Your task to perform on an android device: turn on the 24-hour format for clock Image 0: 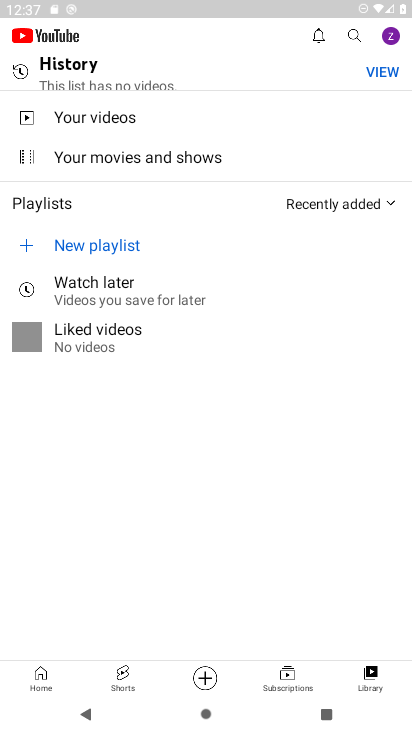
Step 0: press back button
Your task to perform on an android device: turn on the 24-hour format for clock Image 1: 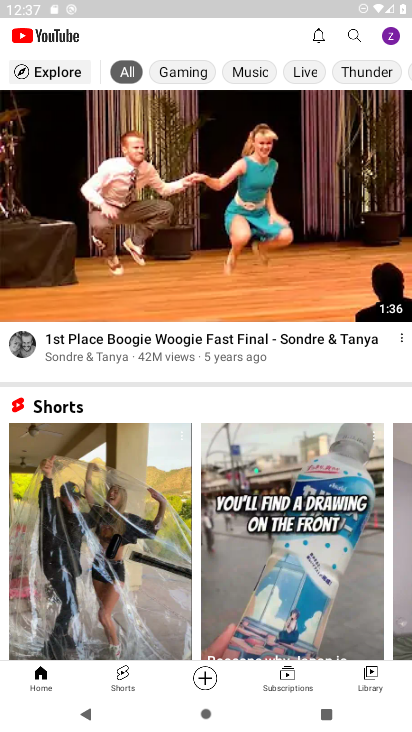
Step 1: press back button
Your task to perform on an android device: turn on the 24-hour format for clock Image 2: 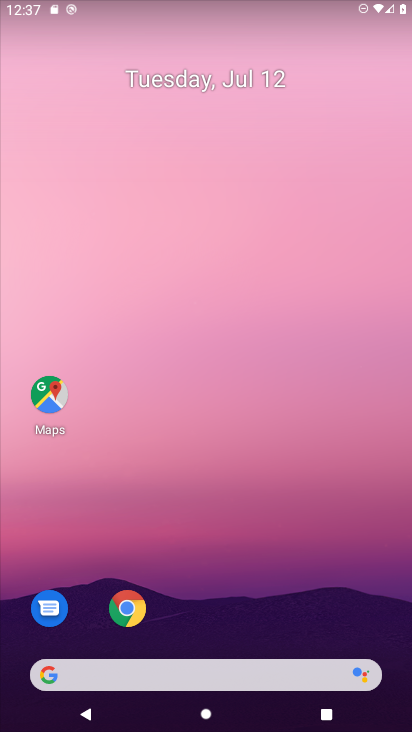
Step 2: drag from (191, 635) to (256, 15)
Your task to perform on an android device: turn on the 24-hour format for clock Image 3: 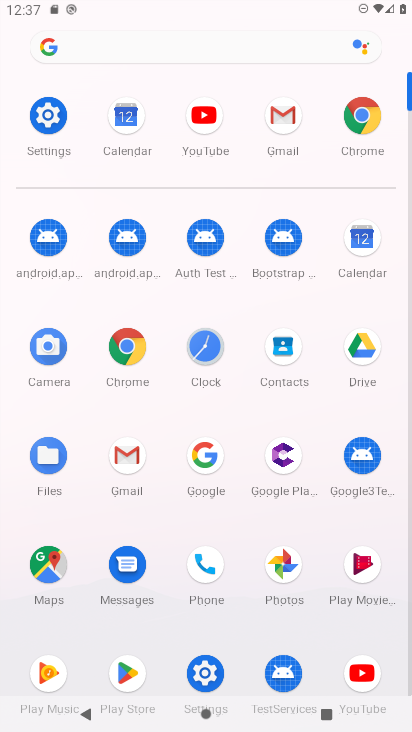
Step 3: click (207, 358)
Your task to perform on an android device: turn on the 24-hour format for clock Image 4: 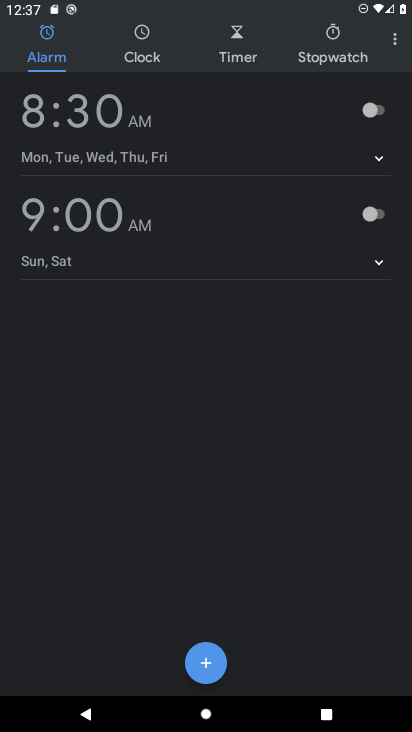
Step 4: click (394, 38)
Your task to perform on an android device: turn on the 24-hour format for clock Image 5: 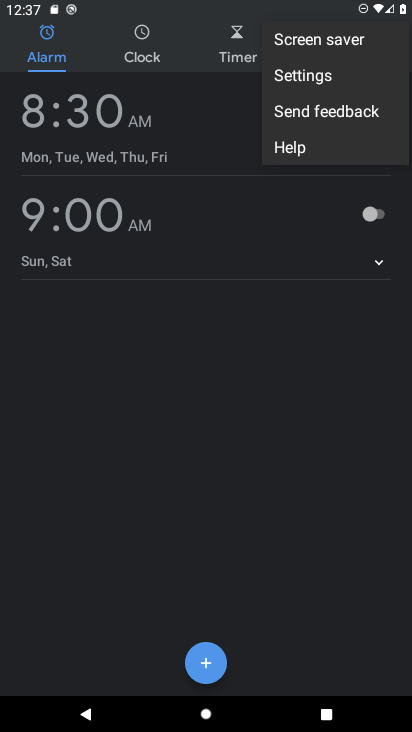
Step 5: click (297, 85)
Your task to perform on an android device: turn on the 24-hour format for clock Image 6: 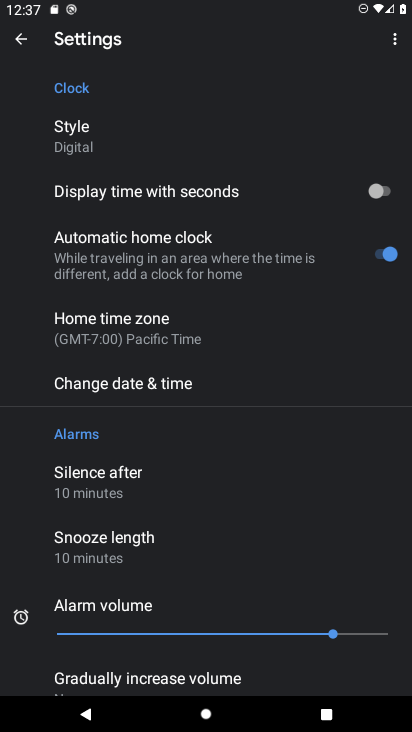
Step 6: click (102, 372)
Your task to perform on an android device: turn on the 24-hour format for clock Image 7: 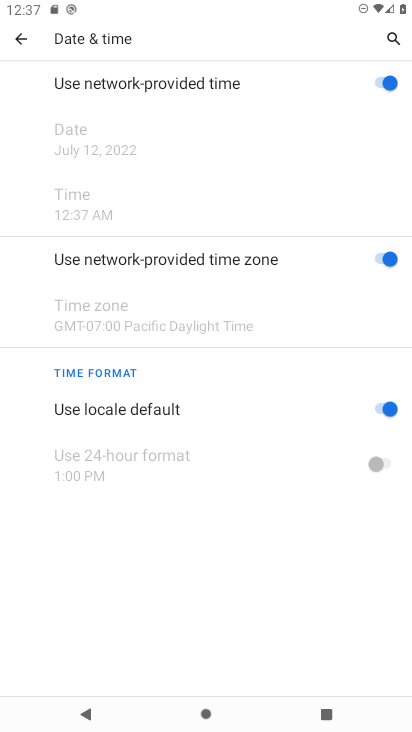
Step 7: click (382, 411)
Your task to perform on an android device: turn on the 24-hour format for clock Image 8: 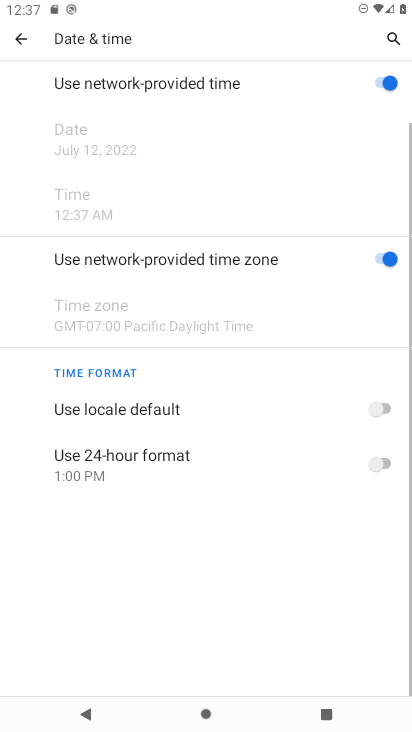
Step 8: click (375, 471)
Your task to perform on an android device: turn on the 24-hour format for clock Image 9: 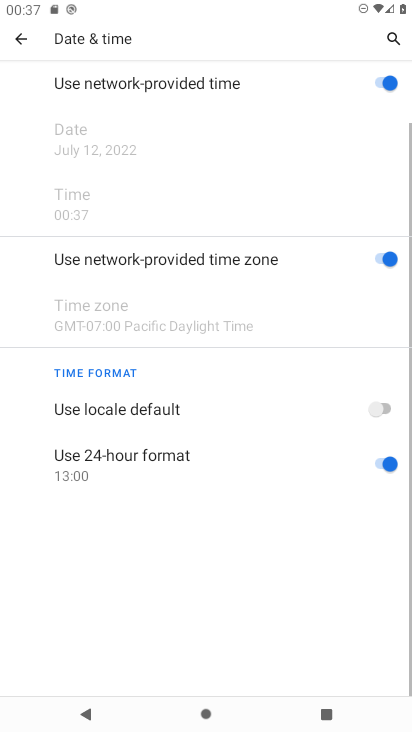
Step 9: task complete